Your task to perform on an android device: open chrome privacy settings Image 0: 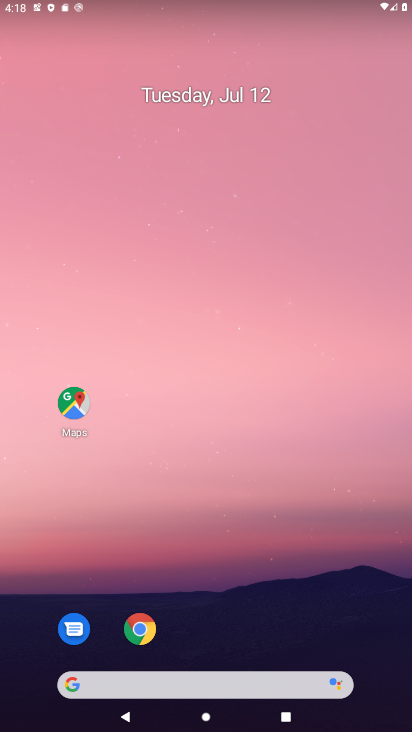
Step 0: press home button
Your task to perform on an android device: open chrome privacy settings Image 1: 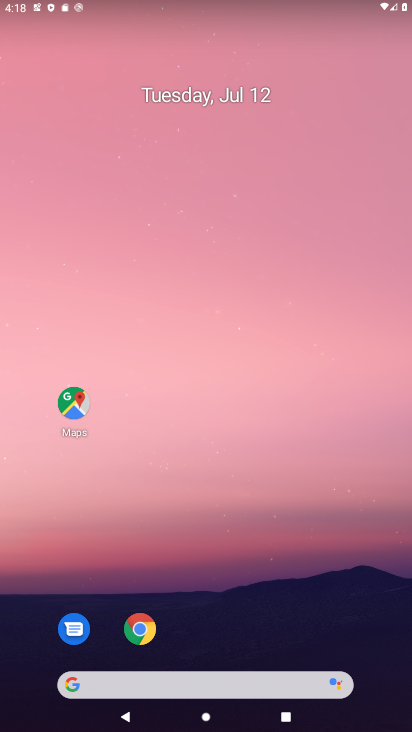
Step 1: drag from (247, 539) to (247, 51)
Your task to perform on an android device: open chrome privacy settings Image 2: 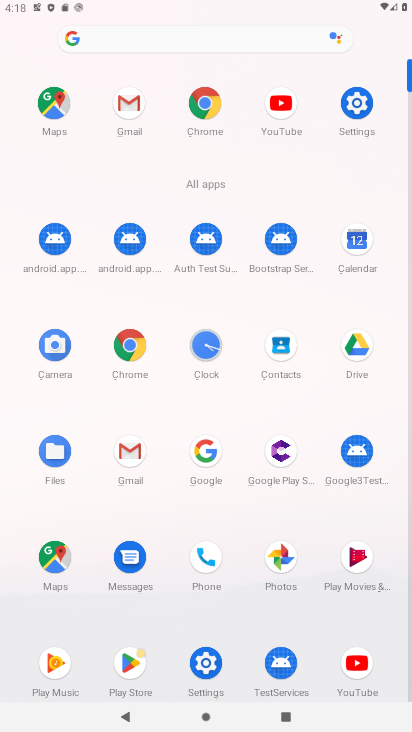
Step 2: click (201, 105)
Your task to perform on an android device: open chrome privacy settings Image 3: 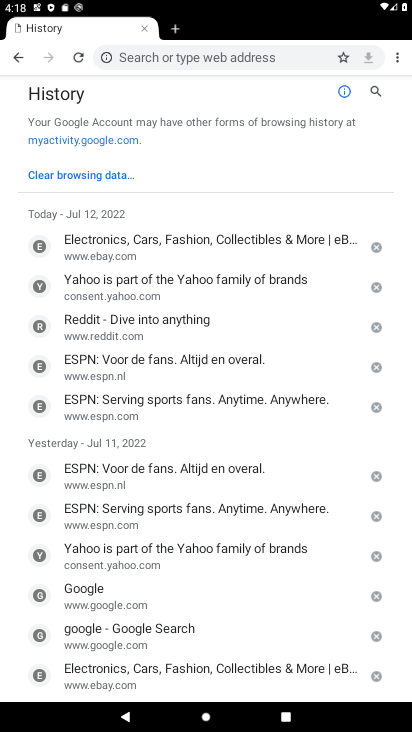
Step 3: press back button
Your task to perform on an android device: open chrome privacy settings Image 4: 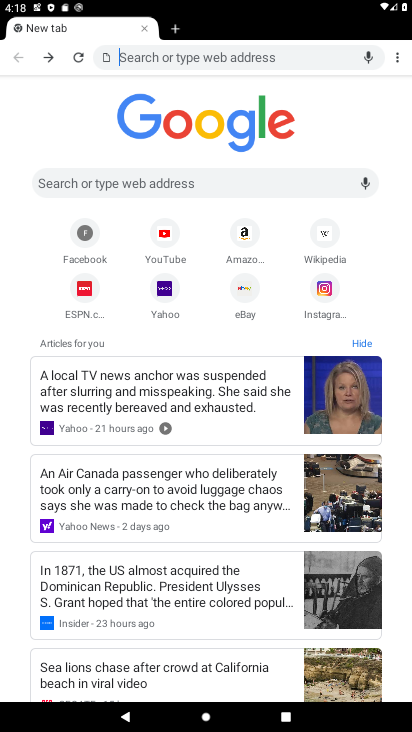
Step 4: drag from (393, 53) to (253, 262)
Your task to perform on an android device: open chrome privacy settings Image 5: 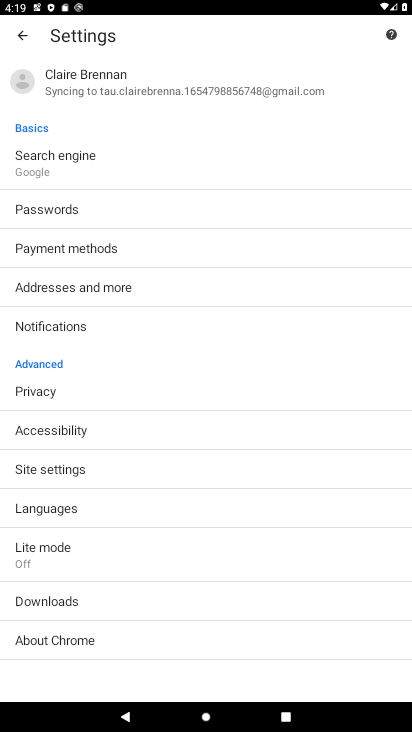
Step 5: click (35, 392)
Your task to perform on an android device: open chrome privacy settings Image 6: 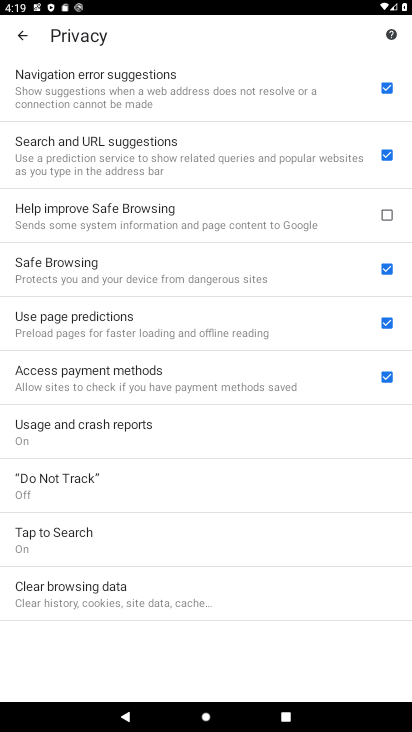
Step 6: task complete